Your task to perform on an android device: Play the last video I watched on Youtube Image 0: 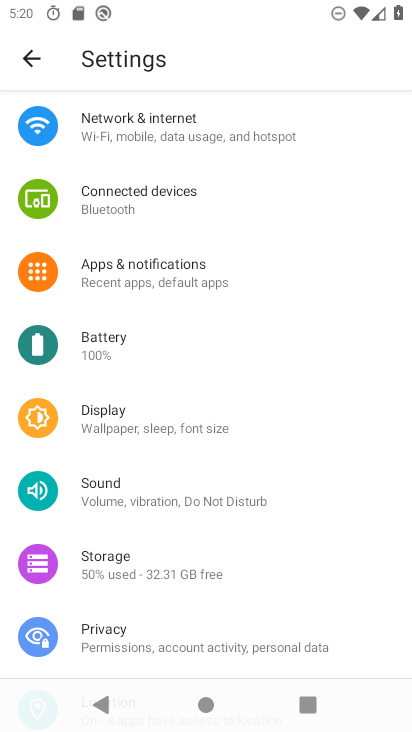
Step 0: press home button
Your task to perform on an android device: Play the last video I watched on Youtube Image 1: 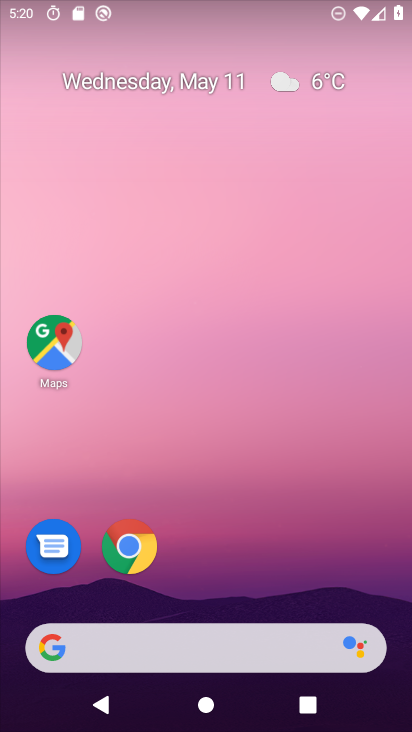
Step 1: drag from (236, 626) to (195, 208)
Your task to perform on an android device: Play the last video I watched on Youtube Image 2: 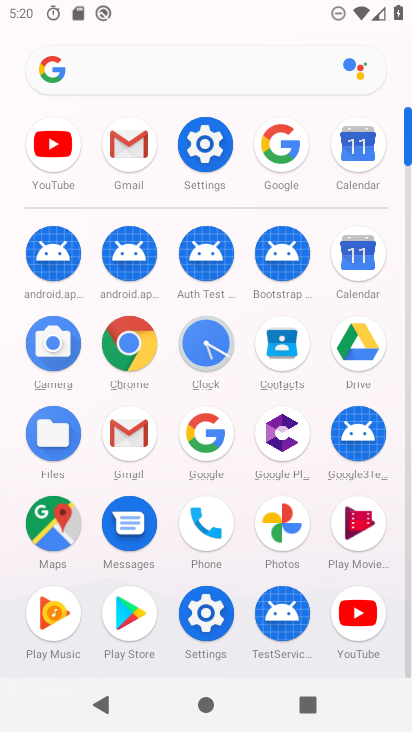
Step 2: click (358, 624)
Your task to perform on an android device: Play the last video I watched on Youtube Image 3: 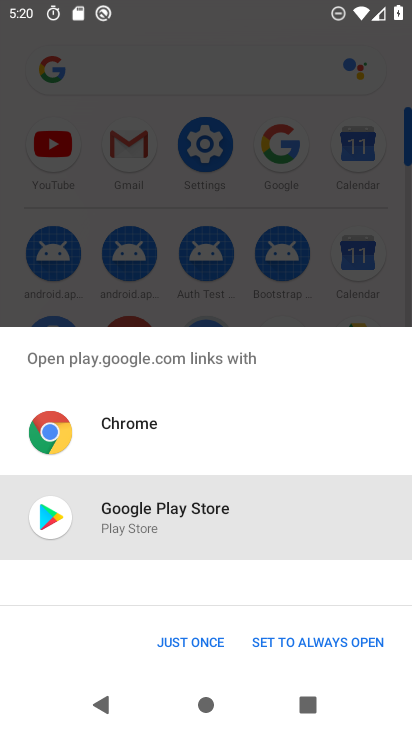
Step 3: click (328, 638)
Your task to perform on an android device: Play the last video I watched on Youtube Image 4: 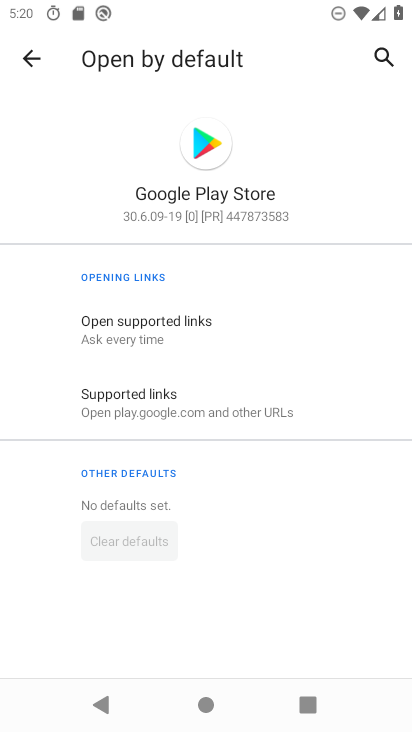
Step 4: click (196, 157)
Your task to perform on an android device: Play the last video I watched on Youtube Image 5: 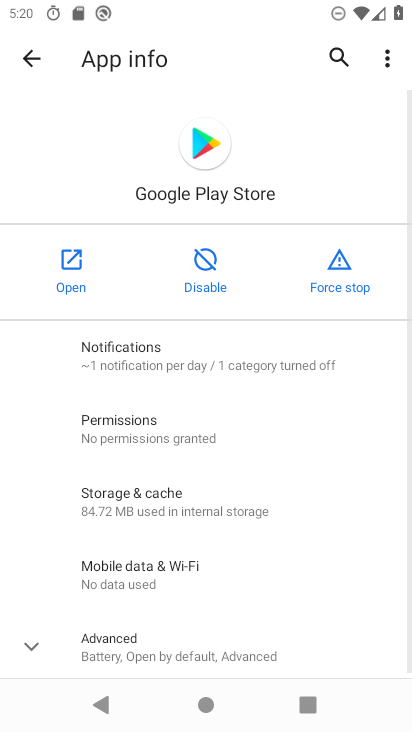
Step 5: click (70, 267)
Your task to perform on an android device: Play the last video I watched on Youtube Image 6: 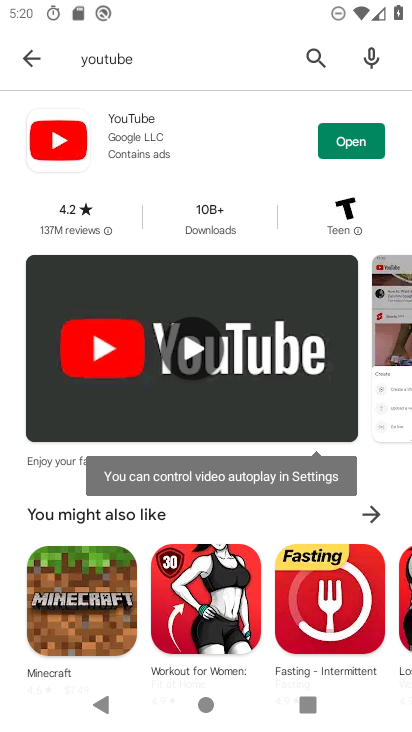
Step 6: click (372, 131)
Your task to perform on an android device: Play the last video I watched on Youtube Image 7: 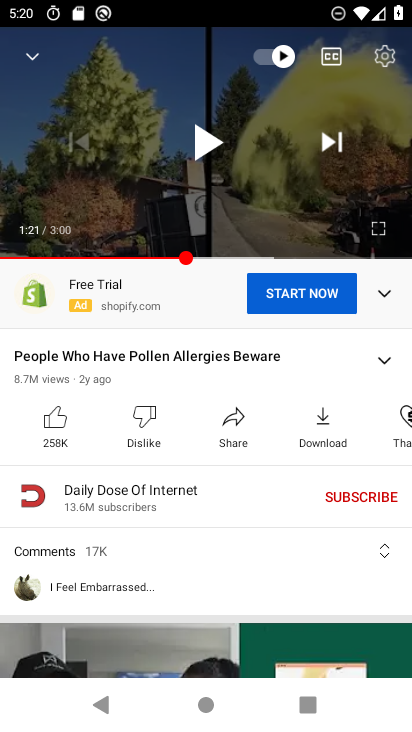
Step 7: press back button
Your task to perform on an android device: Play the last video I watched on Youtube Image 8: 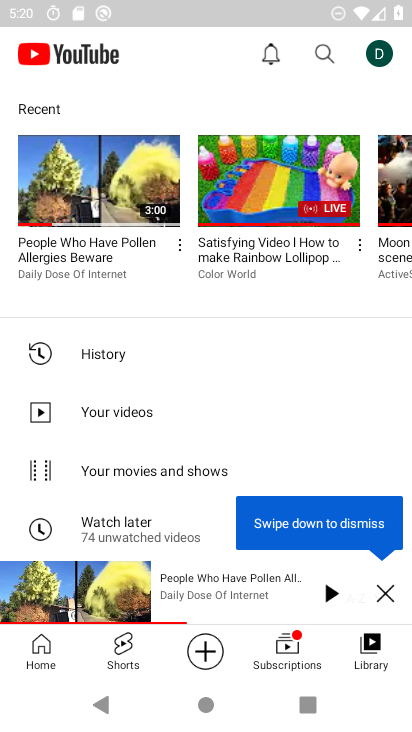
Step 8: click (384, 593)
Your task to perform on an android device: Play the last video I watched on Youtube Image 9: 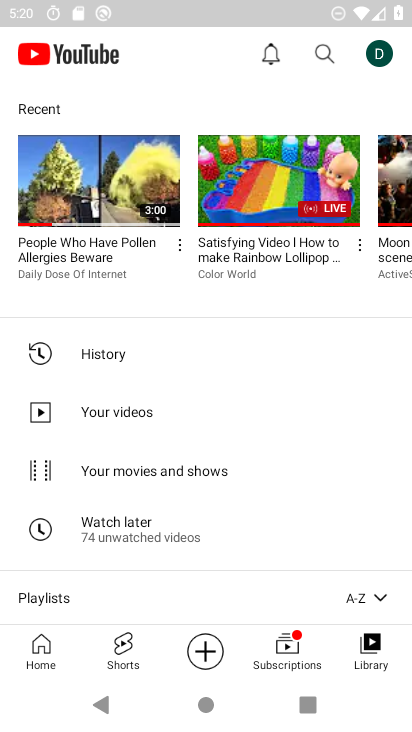
Step 9: click (60, 193)
Your task to perform on an android device: Play the last video I watched on Youtube Image 10: 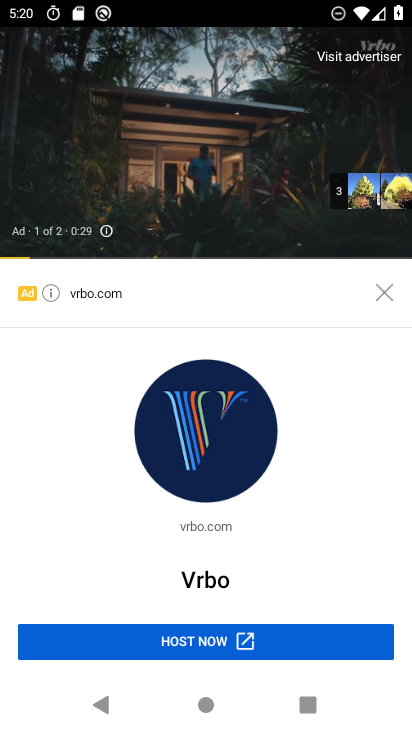
Step 10: click (390, 288)
Your task to perform on an android device: Play the last video I watched on Youtube Image 11: 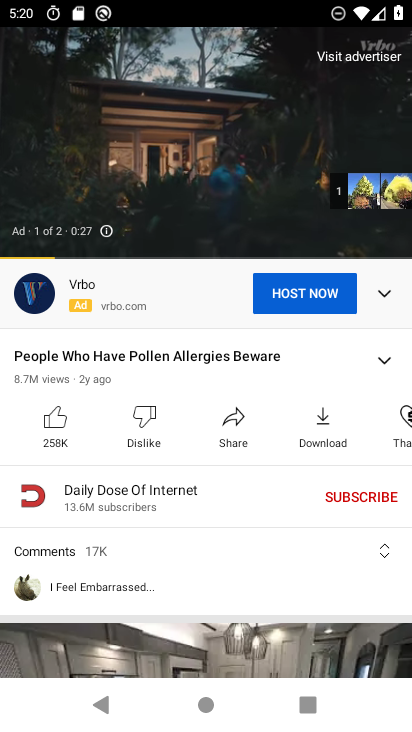
Step 11: task complete